Your task to perform on an android device: Open settings on Google Maps Image 0: 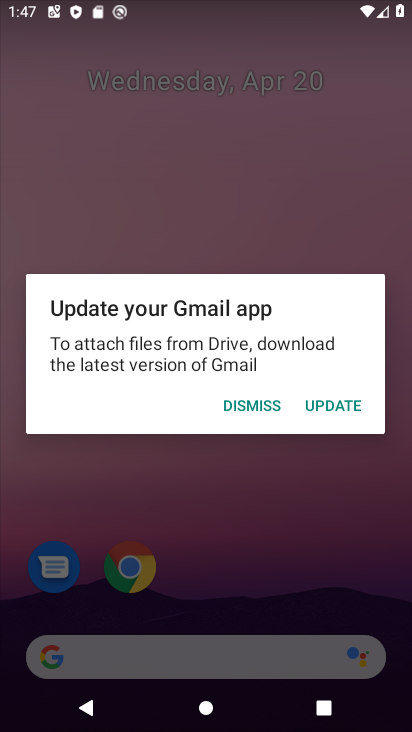
Step 0: press home button
Your task to perform on an android device: Open settings on Google Maps Image 1: 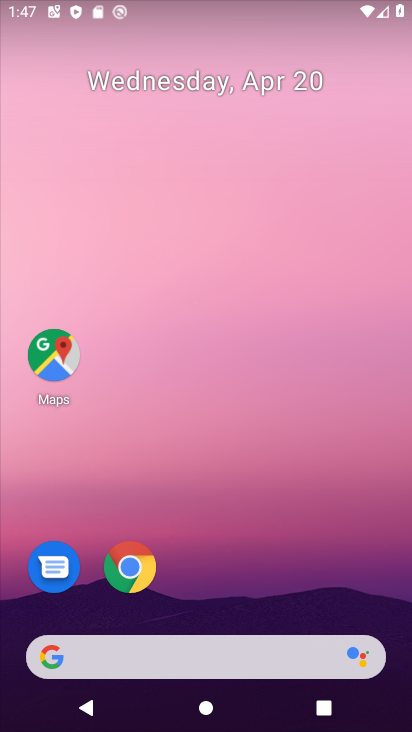
Step 1: click (59, 350)
Your task to perform on an android device: Open settings on Google Maps Image 2: 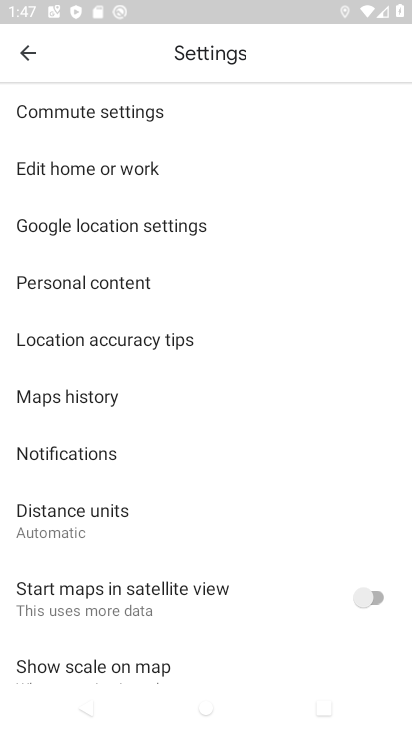
Step 2: task complete